Your task to perform on an android device: Go to accessibility settings Image 0: 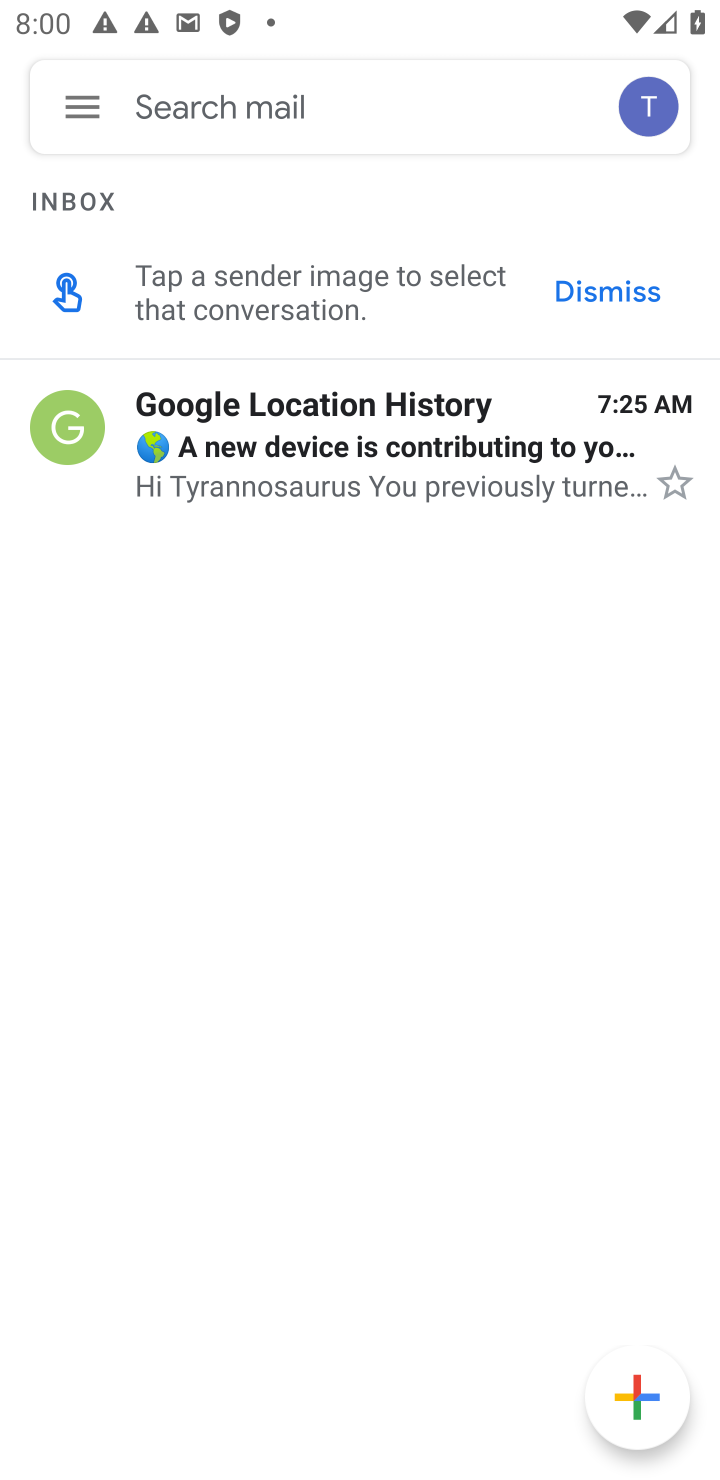
Step 0: press home button
Your task to perform on an android device: Go to accessibility settings Image 1: 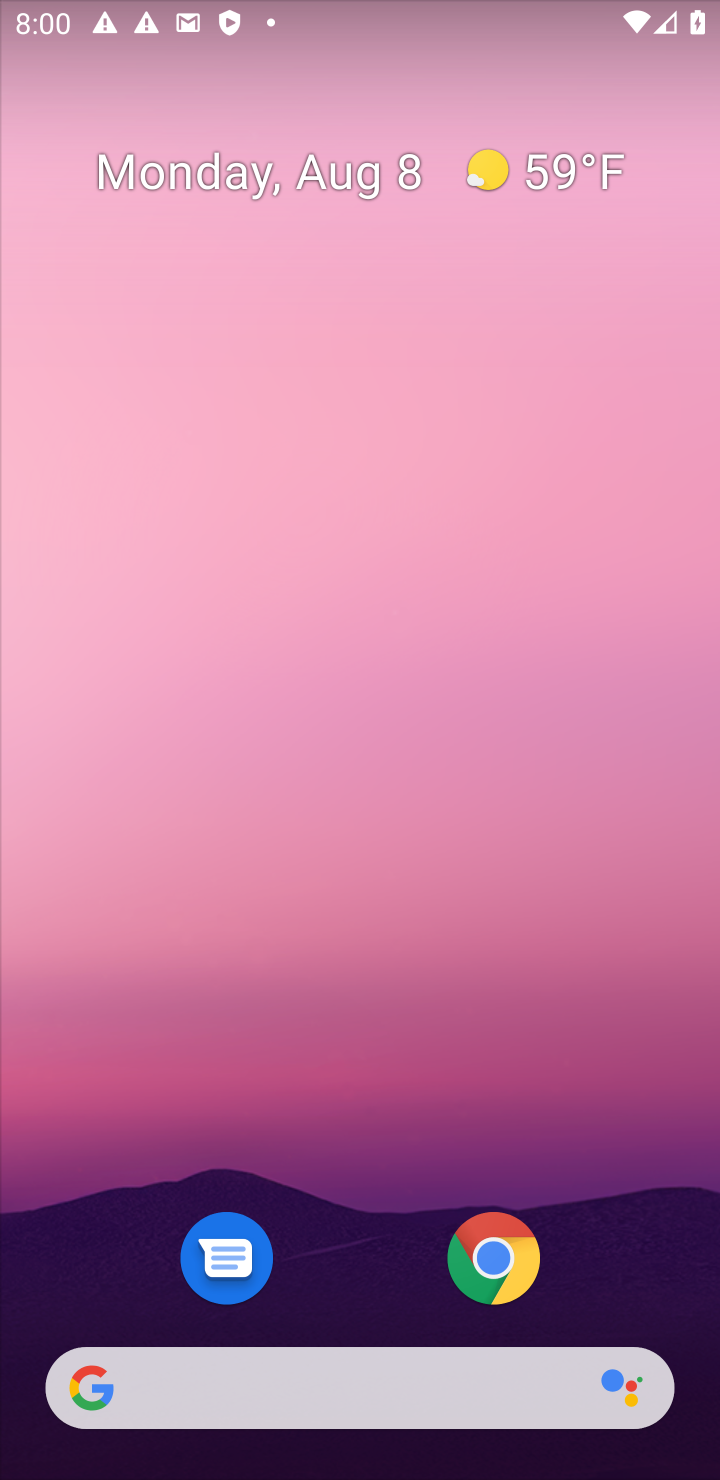
Step 1: drag from (310, 1085) to (334, 599)
Your task to perform on an android device: Go to accessibility settings Image 2: 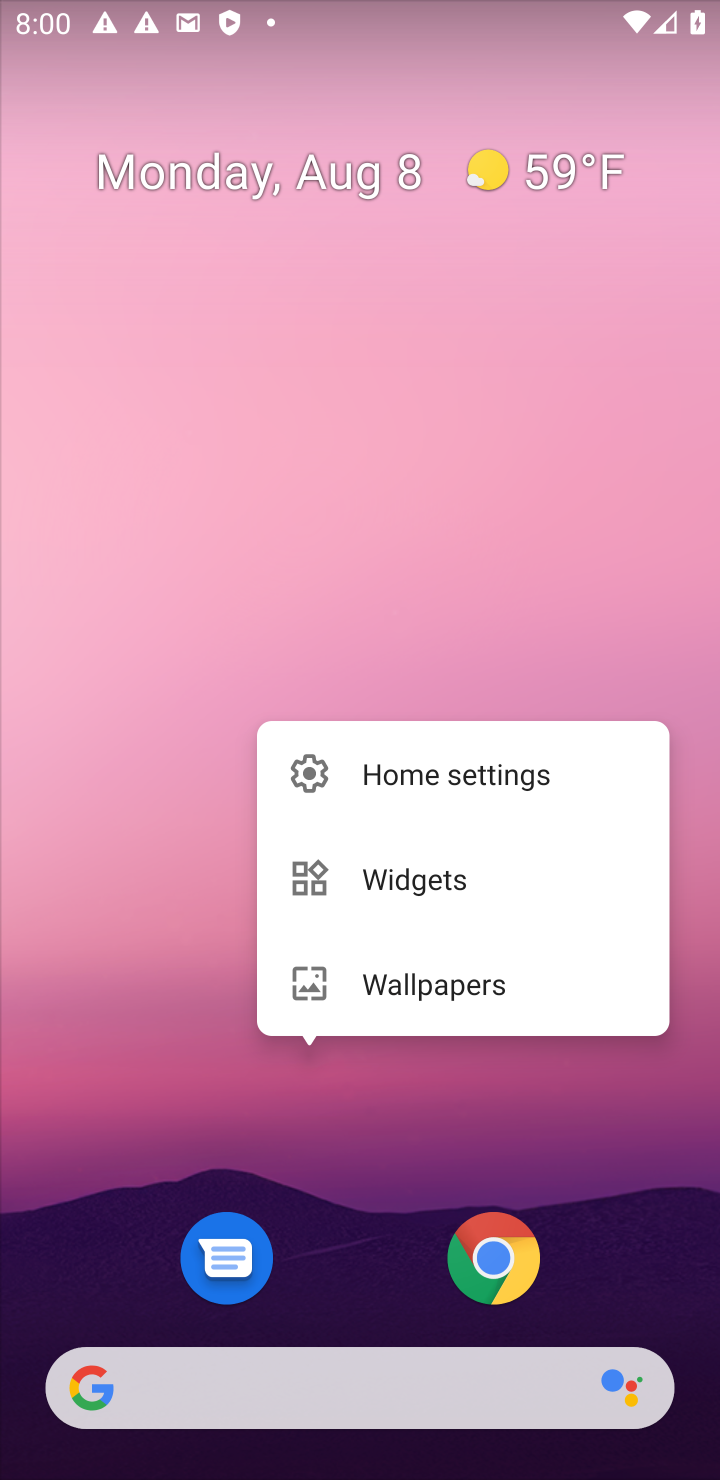
Step 2: click (193, 914)
Your task to perform on an android device: Go to accessibility settings Image 3: 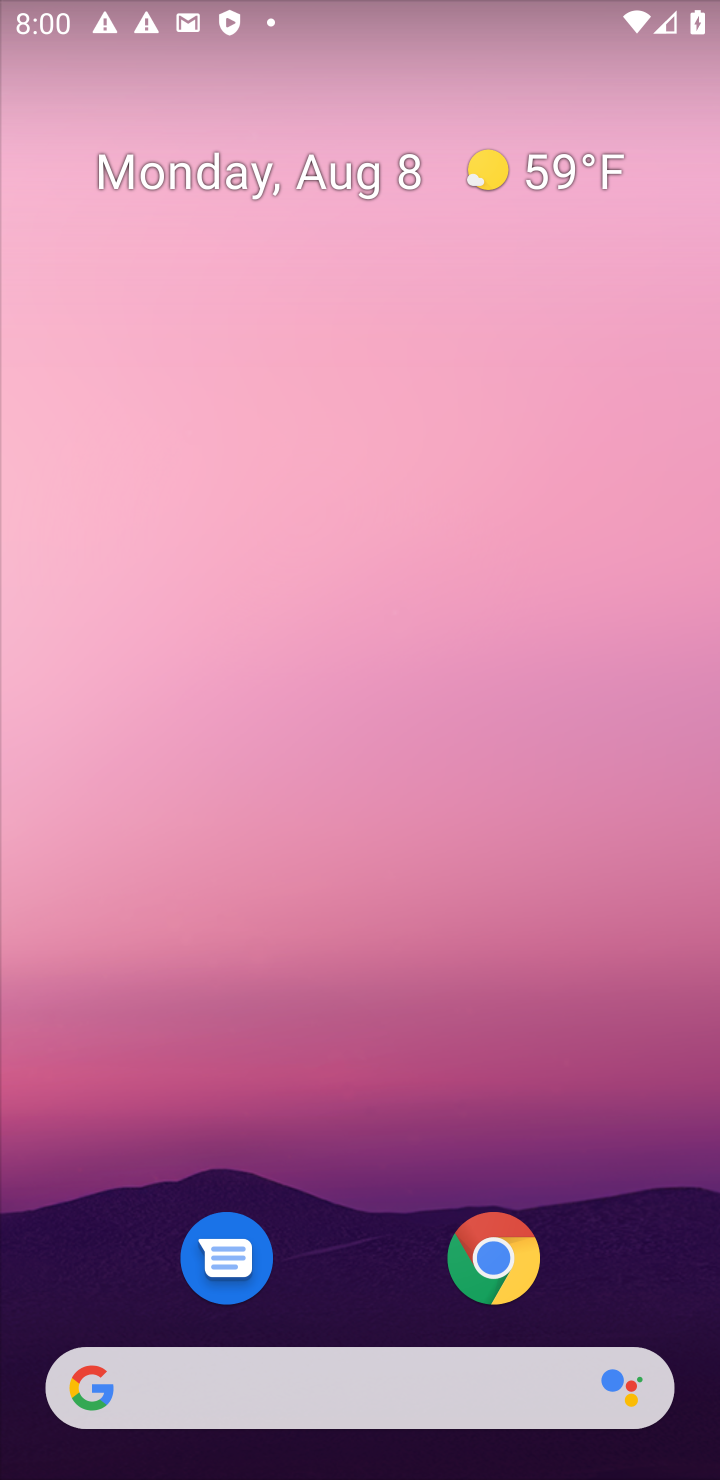
Step 3: drag from (319, 969) to (300, 38)
Your task to perform on an android device: Go to accessibility settings Image 4: 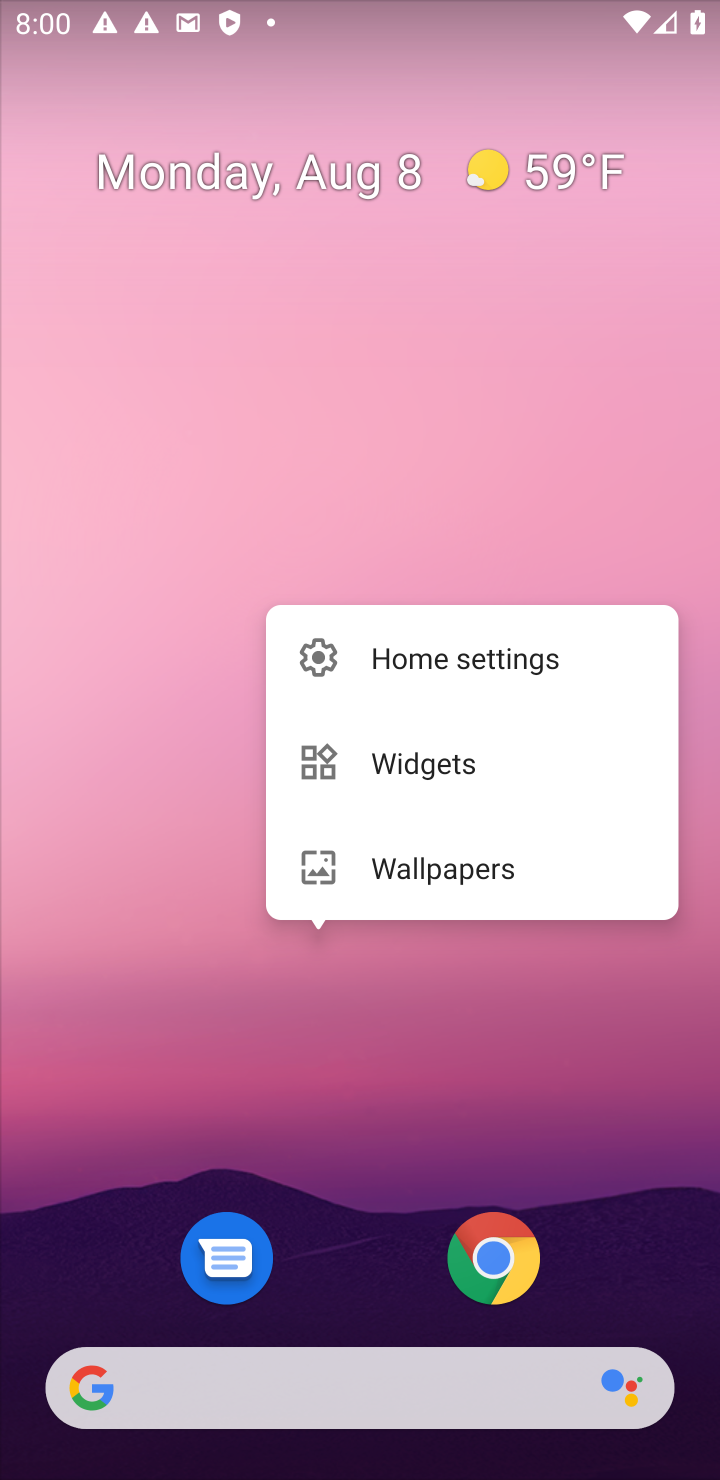
Step 4: click (353, 1054)
Your task to perform on an android device: Go to accessibility settings Image 5: 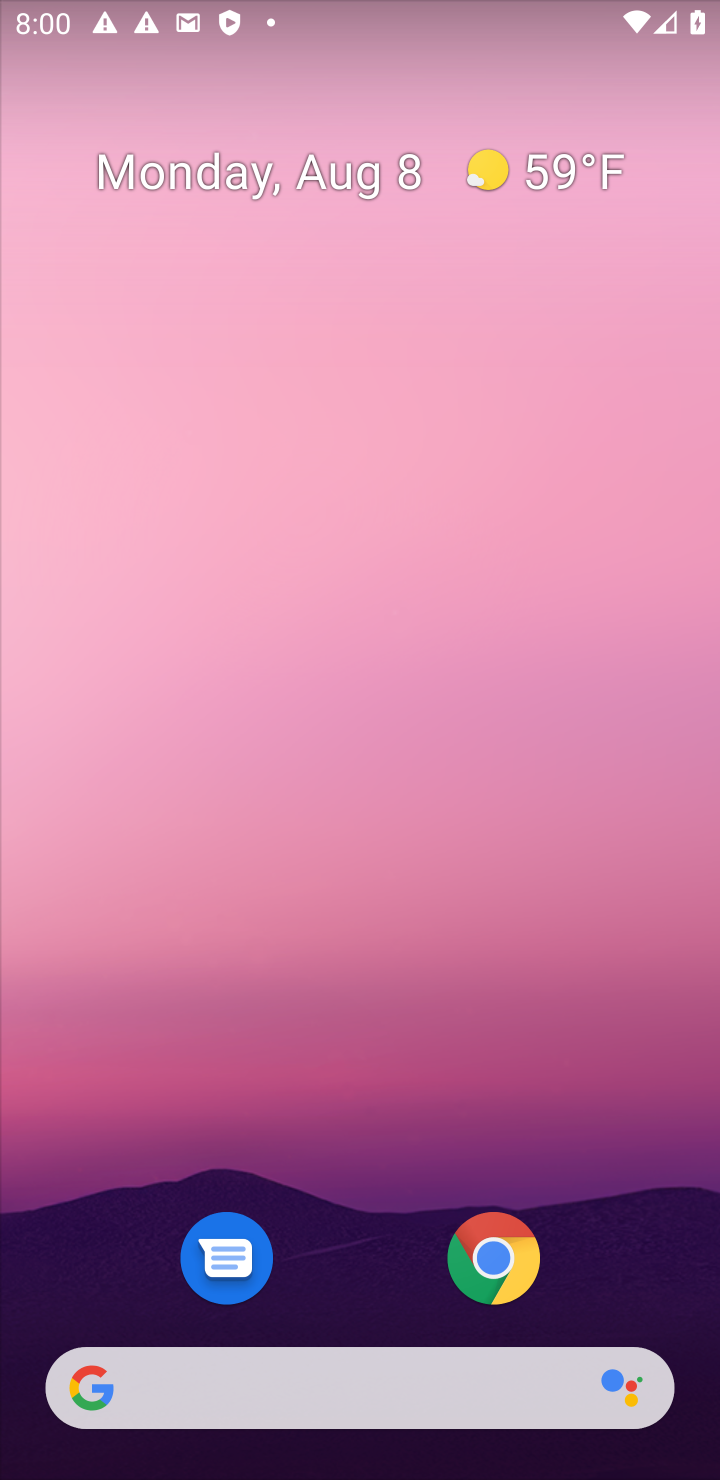
Step 5: drag from (353, 1054) to (478, 111)
Your task to perform on an android device: Go to accessibility settings Image 6: 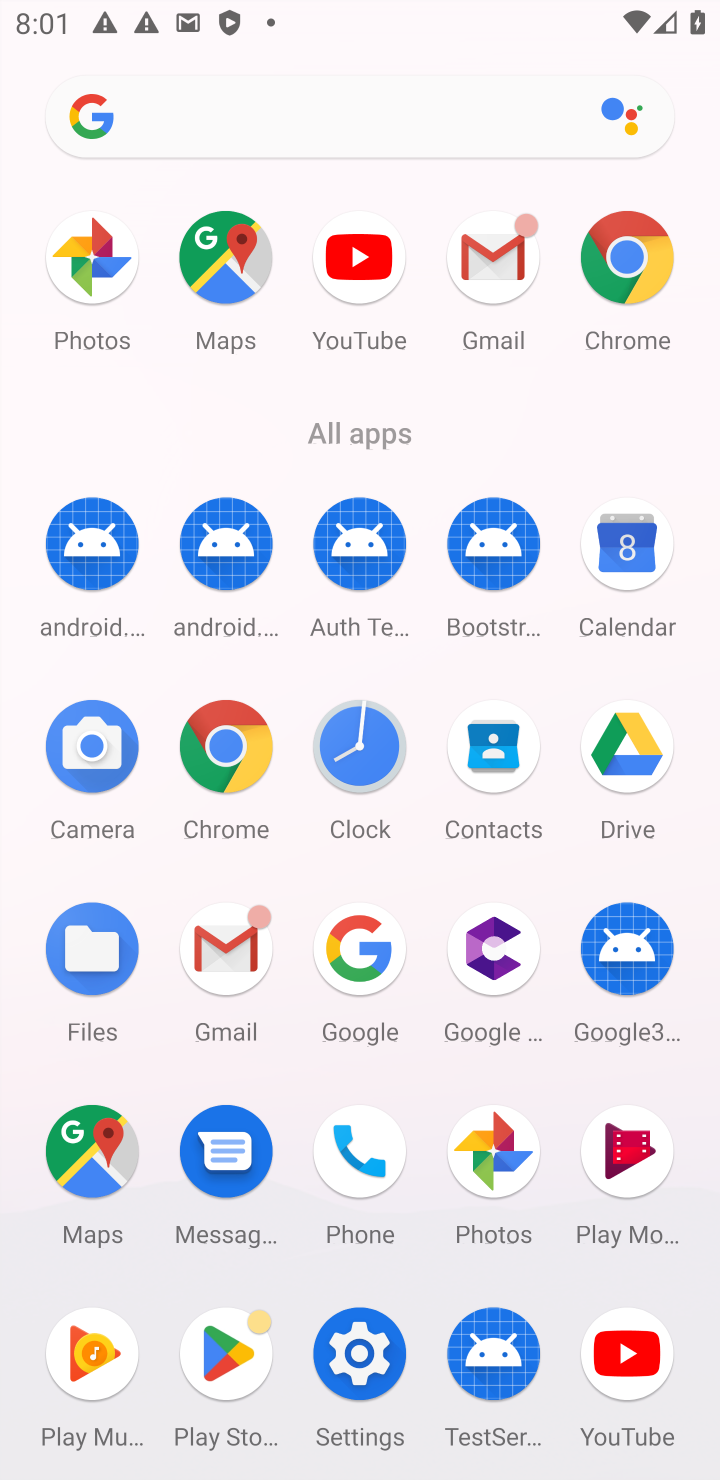
Step 6: click (343, 1357)
Your task to perform on an android device: Go to accessibility settings Image 7: 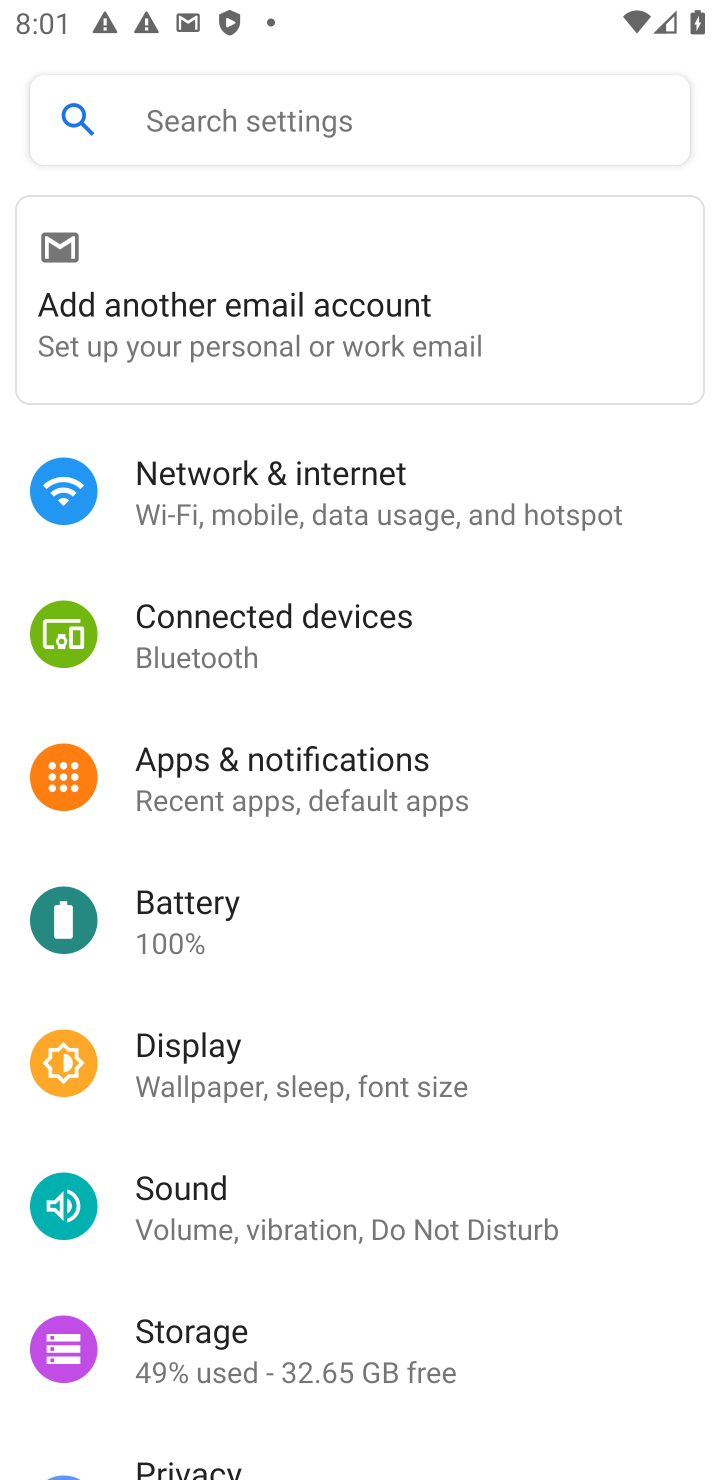
Step 7: drag from (426, 1357) to (434, 608)
Your task to perform on an android device: Go to accessibility settings Image 8: 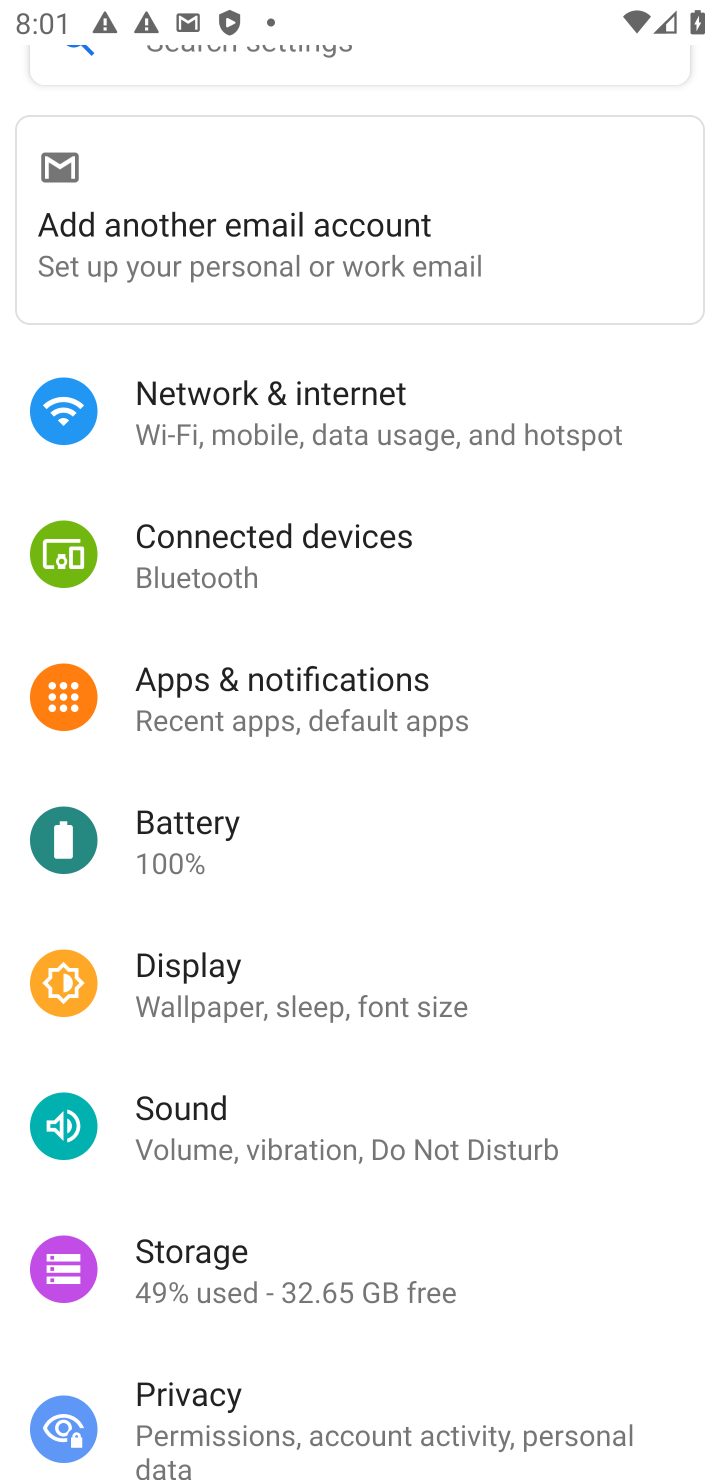
Step 8: drag from (420, 1099) to (566, 330)
Your task to perform on an android device: Go to accessibility settings Image 9: 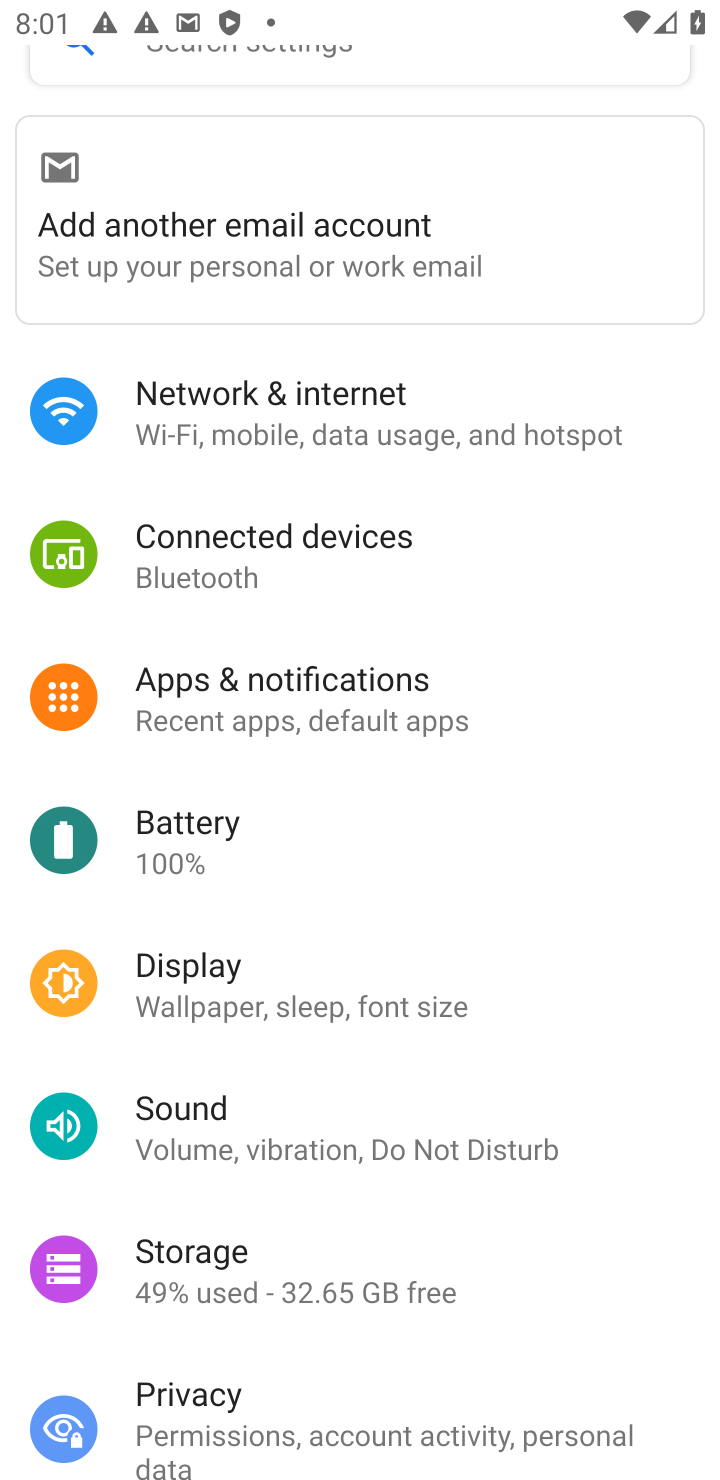
Step 9: drag from (354, 1233) to (396, 455)
Your task to perform on an android device: Go to accessibility settings Image 10: 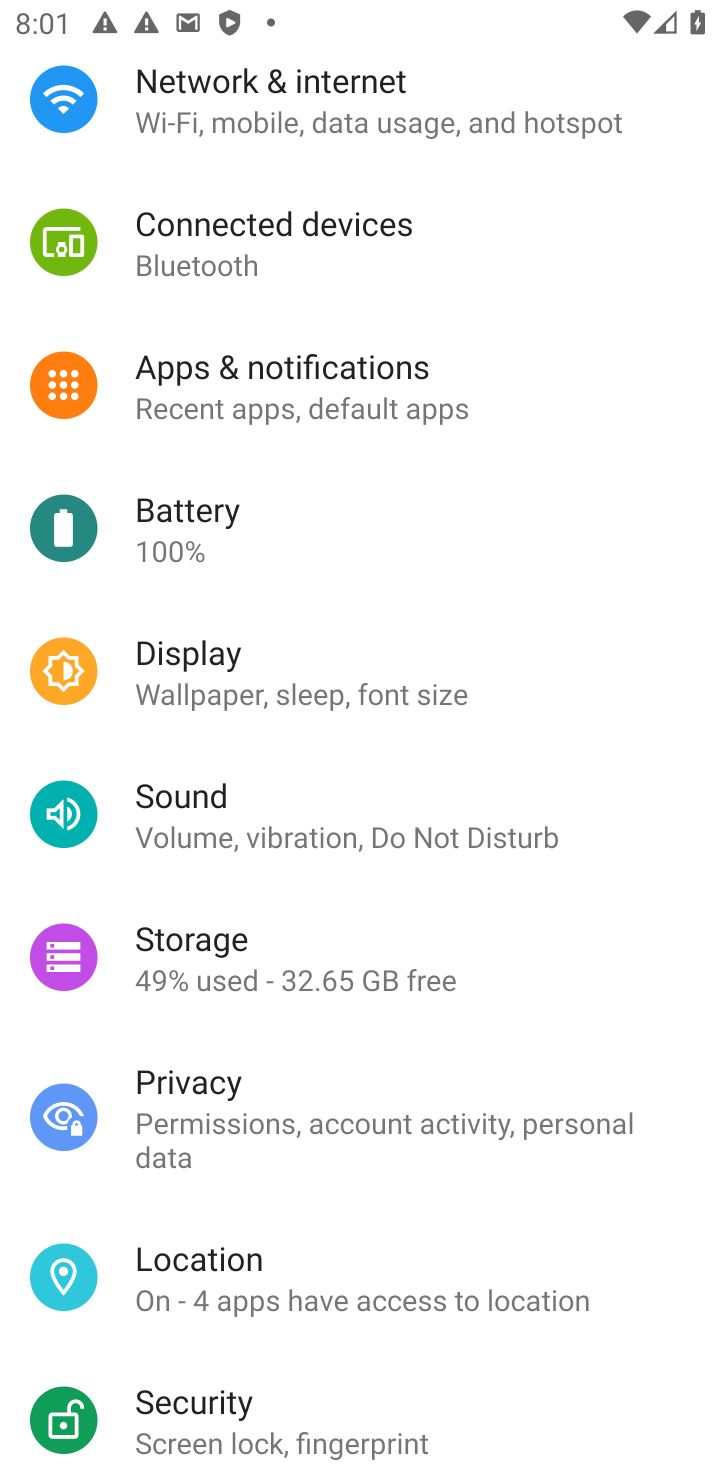
Step 10: drag from (270, 1286) to (381, 355)
Your task to perform on an android device: Go to accessibility settings Image 11: 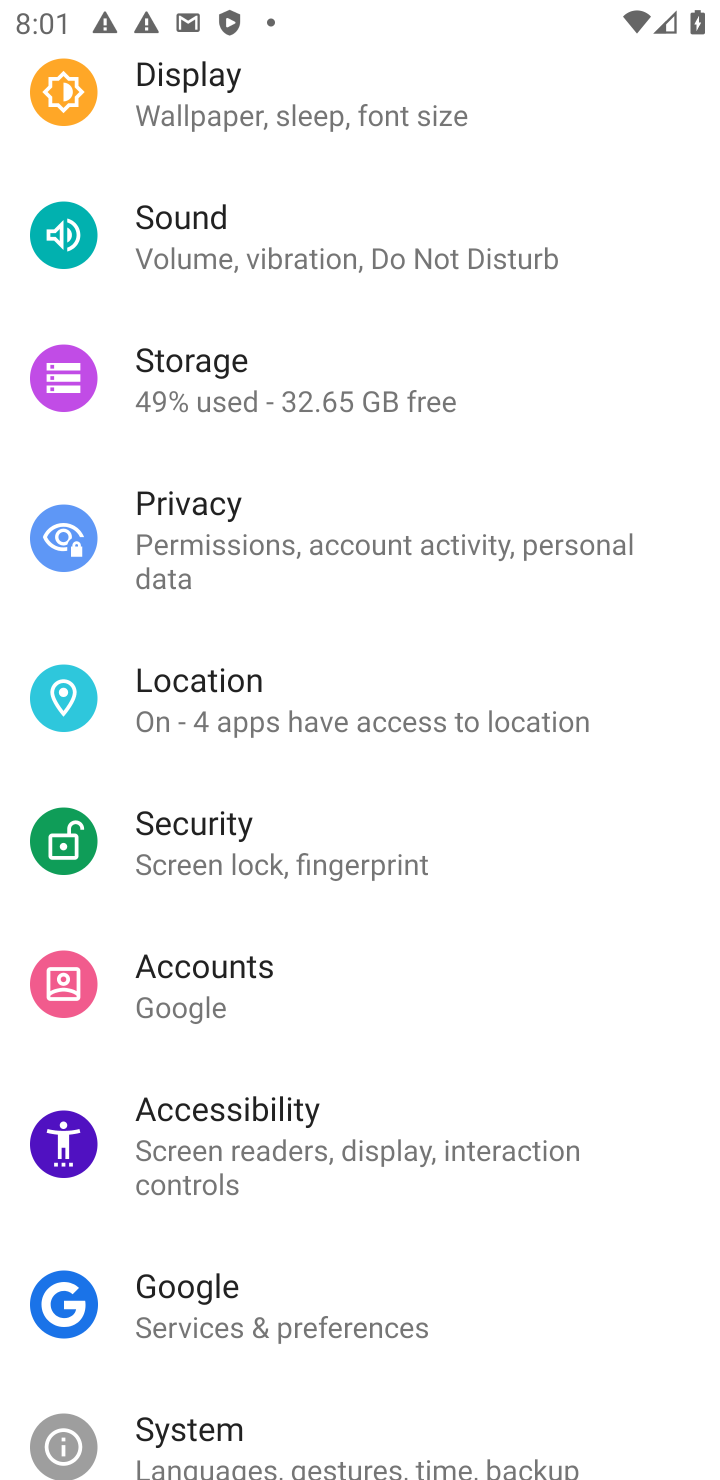
Step 11: drag from (473, 1211) to (518, 428)
Your task to perform on an android device: Go to accessibility settings Image 12: 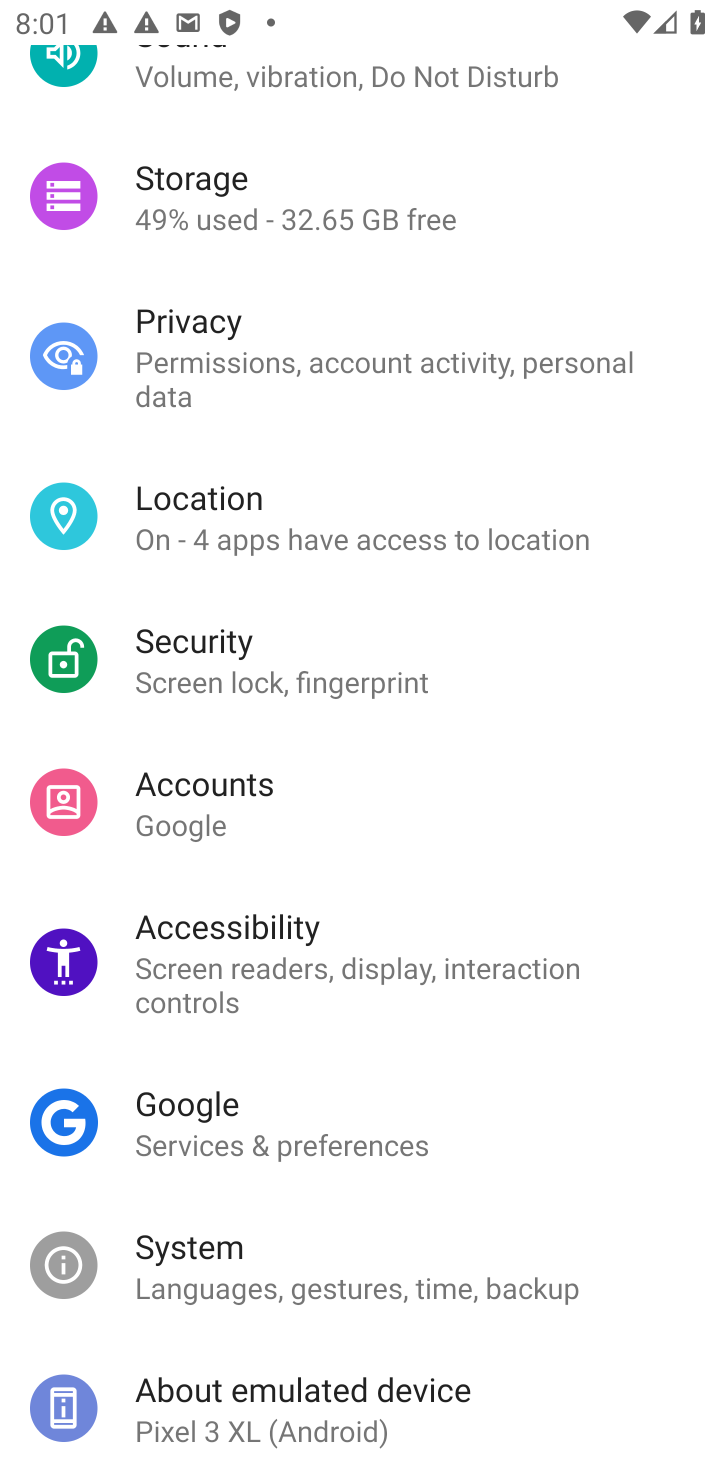
Step 12: click (294, 934)
Your task to perform on an android device: Go to accessibility settings Image 13: 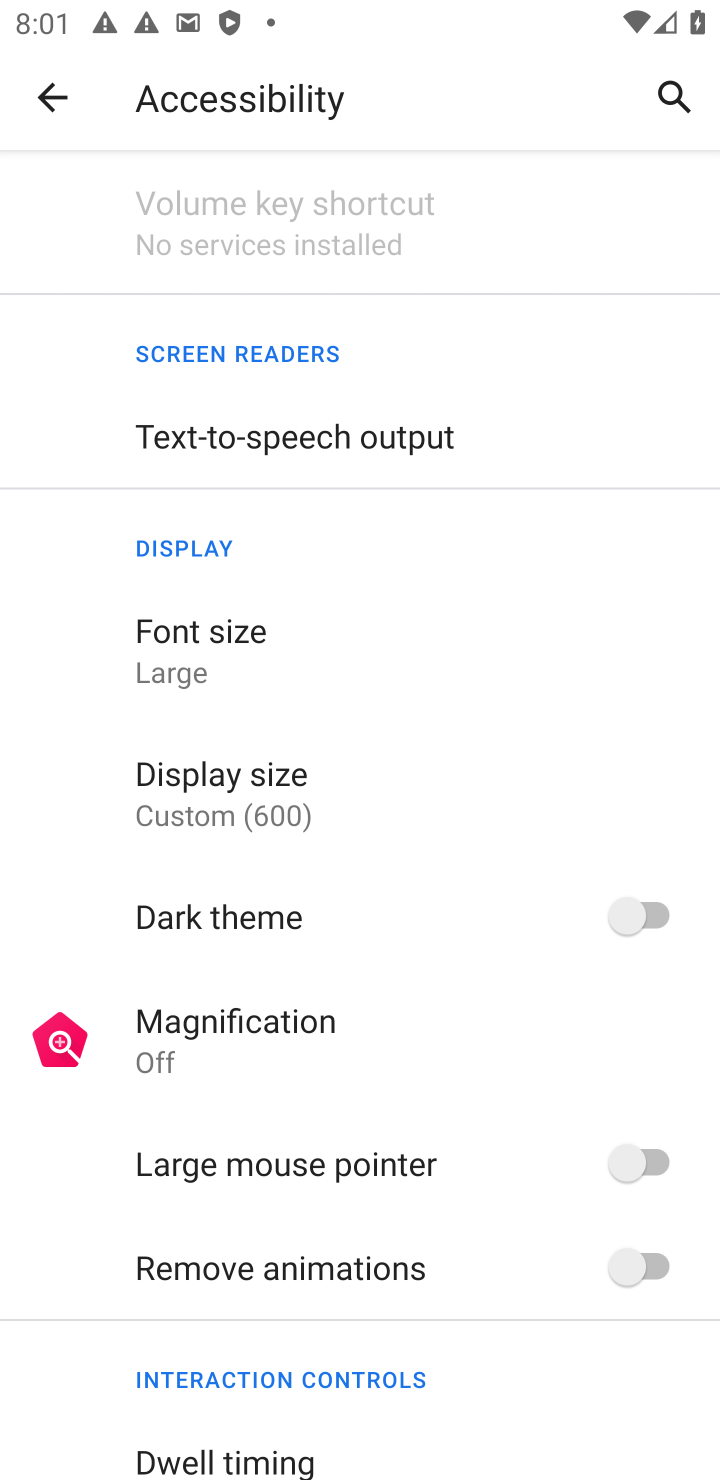
Step 13: task complete